Your task to perform on an android device: Go to location settings Image 0: 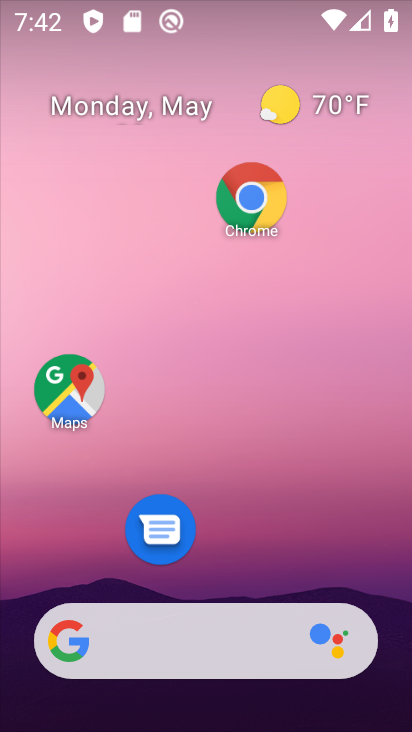
Step 0: drag from (218, 583) to (219, 9)
Your task to perform on an android device: Go to location settings Image 1: 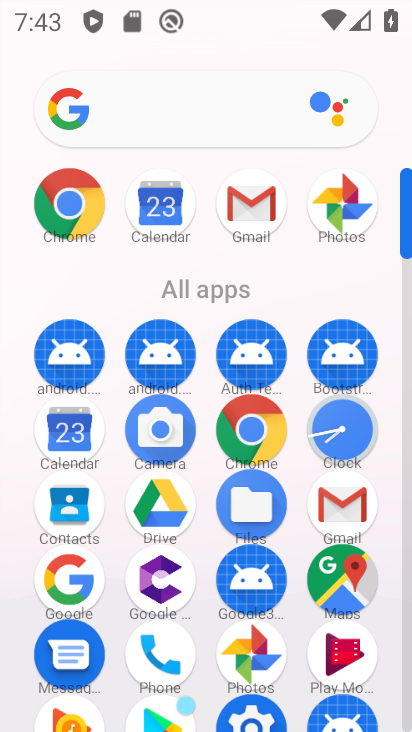
Step 1: drag from (205, 619) to (185, 146)
Your task to perform on an android device: Go to location settings Image 2: 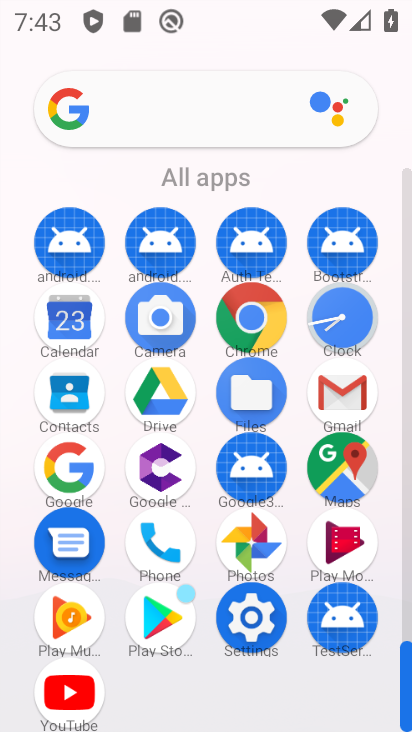
Step 2: click (243, 615)
Your task to perform on an android device: Go to location settings Image 3: 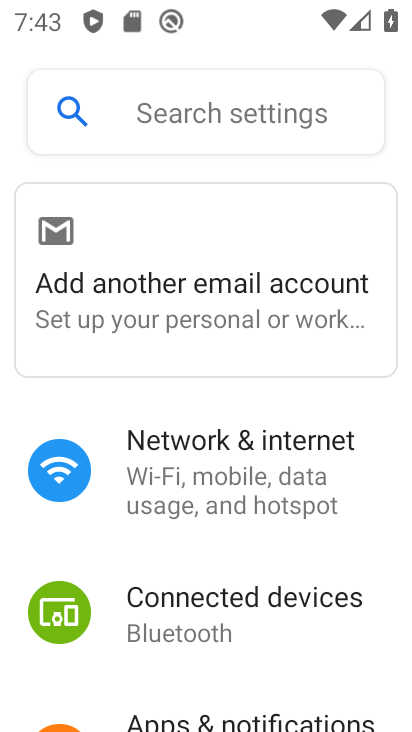
Step 3: drag from (274, 665) to (248, 84)
Your task to perform on an android device: Go to location settings Image 4: 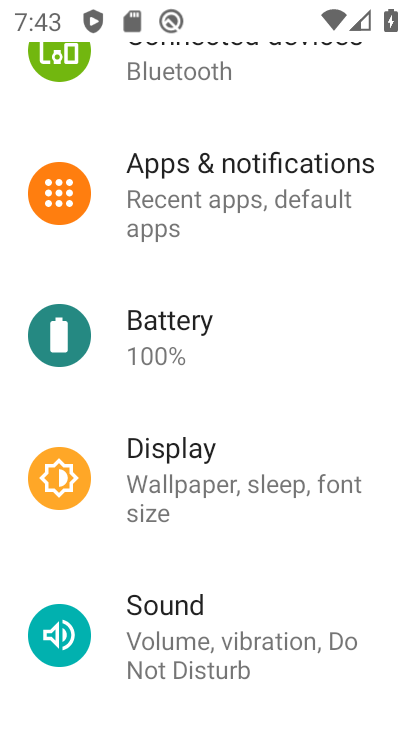
Step 4: drag from (243, 678) to (270, 111)
Your task to perform on an android device: Go to location settings Image 5: 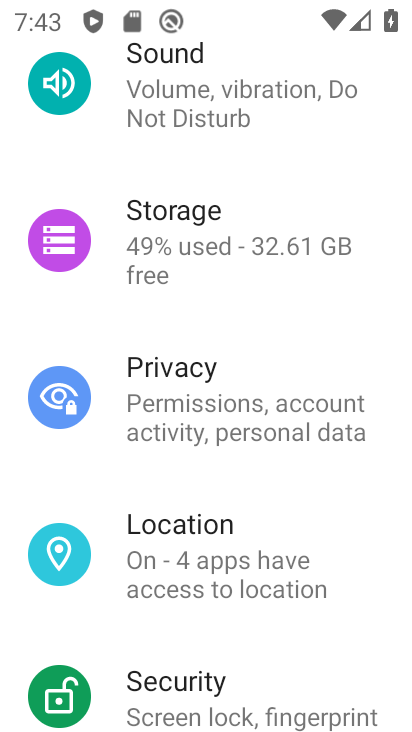
Step 5: click (329, 558)
Your task to perform on an android device: Go to location settings Image 6: 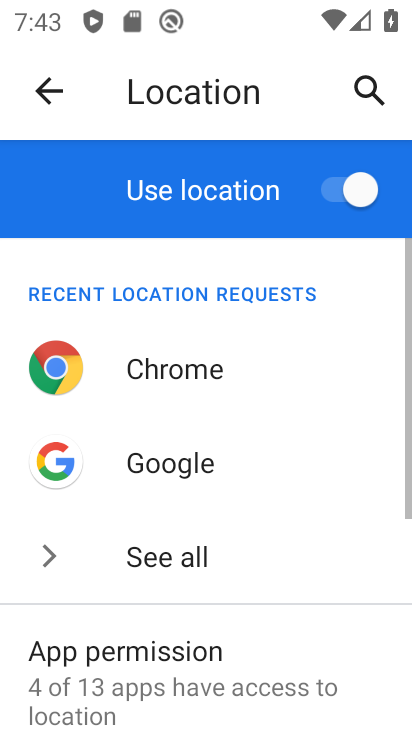
Step 6: drag from (251, 669) to (275, 192)
Your task to perform on an android device: Go to location settings Image 7: 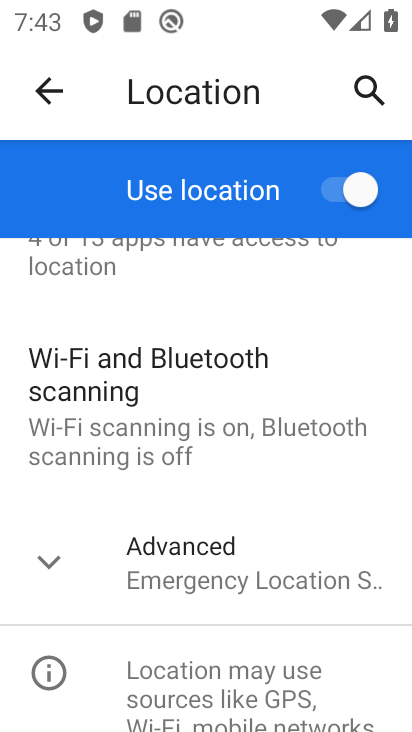
Step 7: click (43, 563)
Your task to perform on an android device: Go to location settings Image 8: 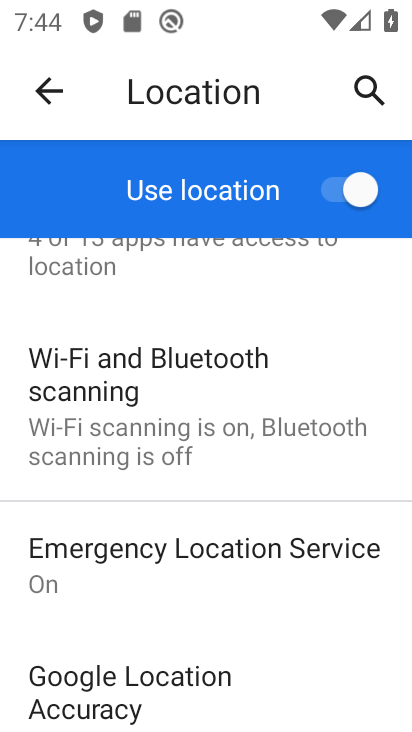
Step 8: task complete